Your task to perform on an android device: Play the last video I watched on Youtube Image 0: 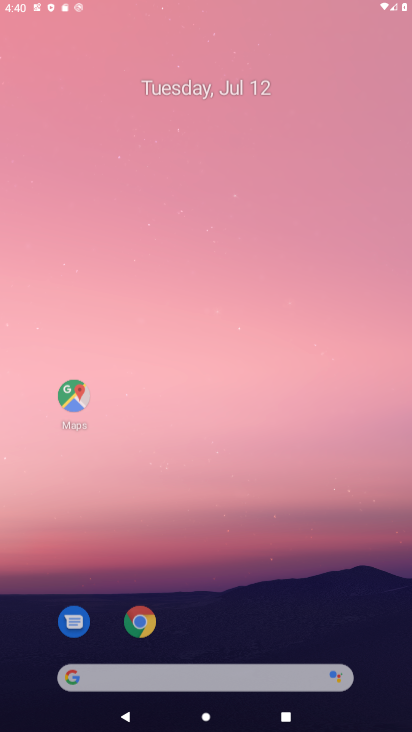
Step 0: press home button
Your task to perform on an android device: Play the last video I watched on Youtube Image 1: 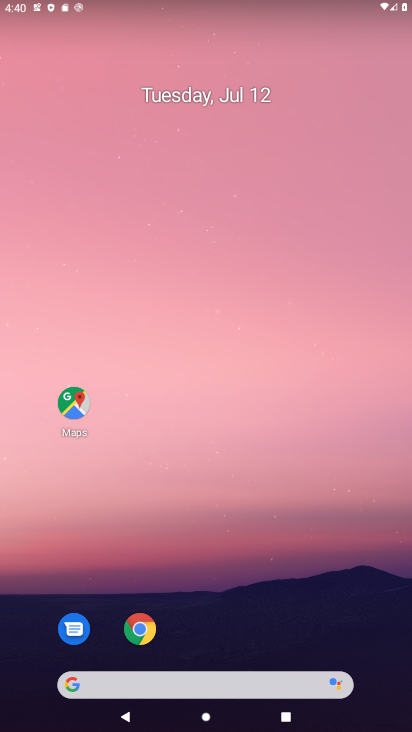
Step 1: drag from (332, 643) to (352, 95)
Your task to perform on an android device: Play the last video I watched on Youtube Image 2: 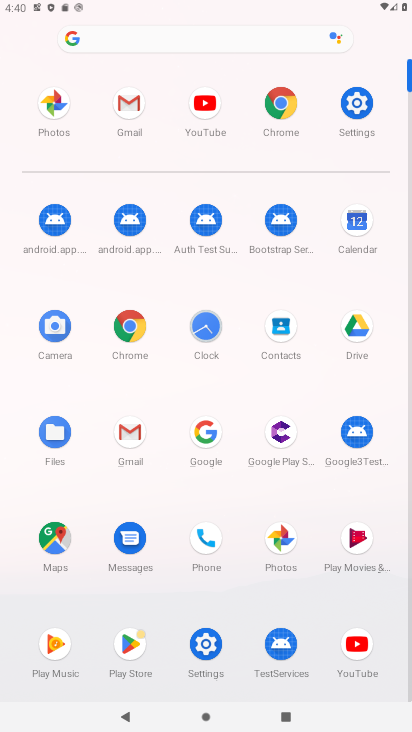
Step 2: click (357, 644)
Your task to perform on an android device: Play the last video I watched on Youtube Image 3: 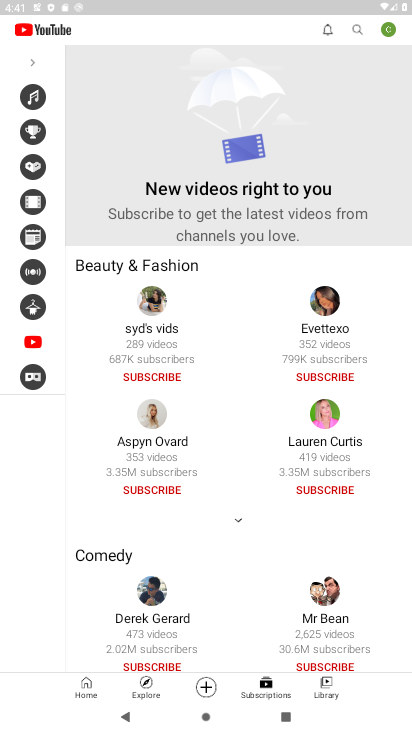
Step 3: press back button
Your task to perform on an android device: Play the last video I watched on Youtube Image 4: 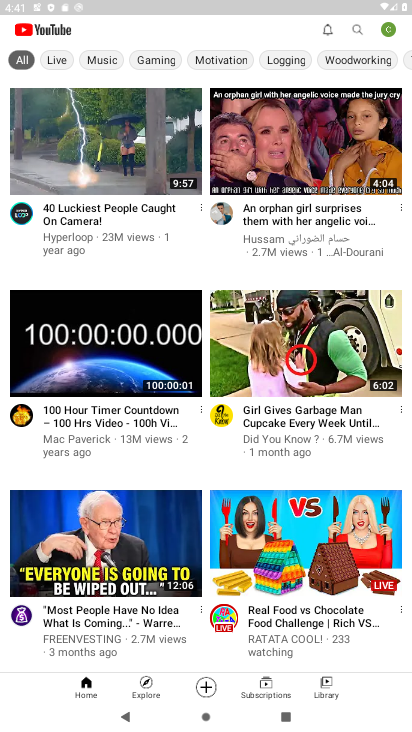
Step 4: click (319, 686)
Your task to perform on an android device: Play the last video I watched on Youtube Image 5: 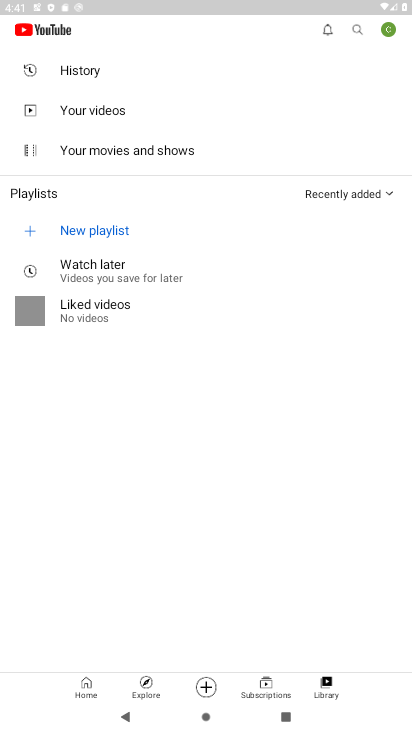
Step 5: click (71, 66)
Your task to perform on an android device: Play the last video I watched on Youtube Image 6: 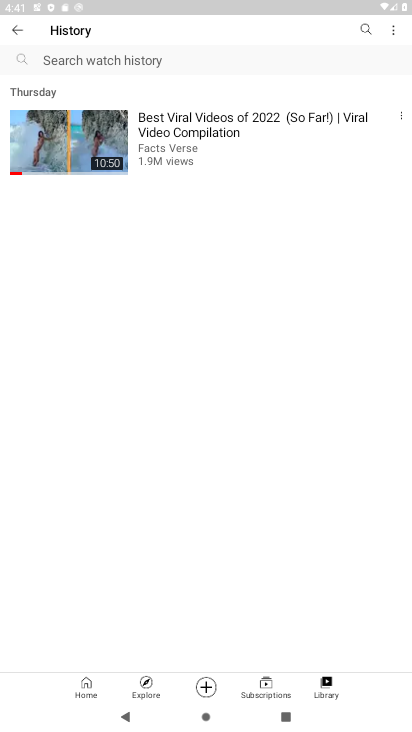
Step 6: click (95, 135)
Your task to perform on an android device: Play the last video I watched on Youtube Image 7: 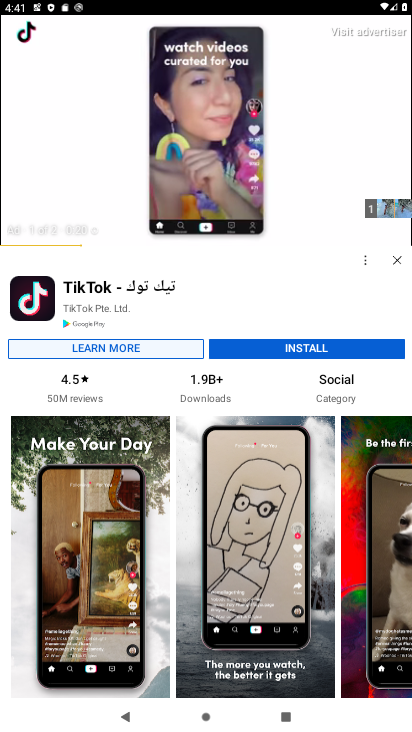
Step 7: click (397, 261)
Your task to perform on an android device: Play the last video I watched on Youtube Image 8: 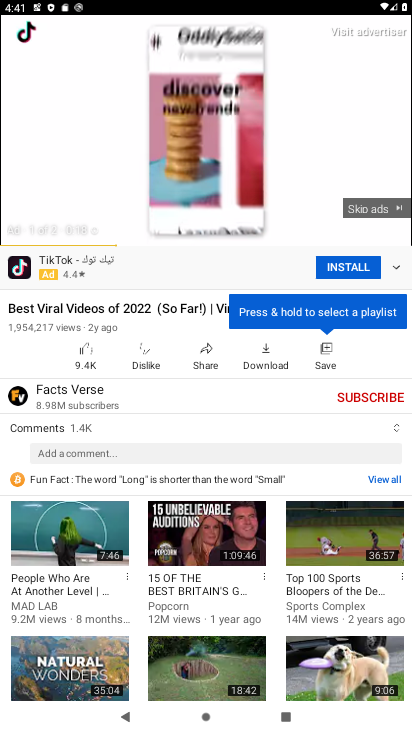
Step 8: click (353, 209)
Your task to perform on an android device: Play the last video I watched on Youtube Image 9: 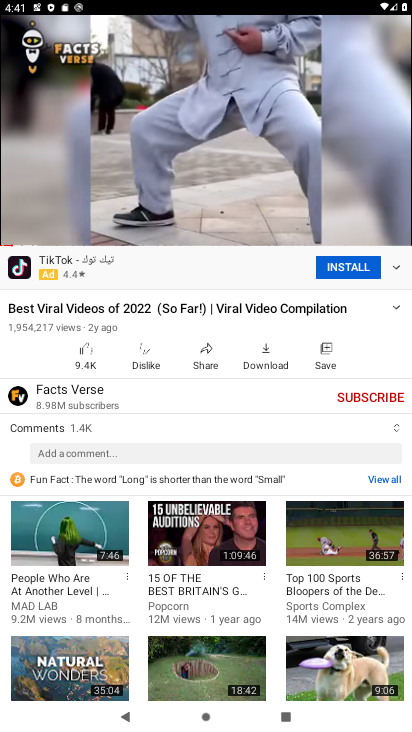
Step 9: task complete